Your task to perform on an android device: set default search engine in the chrome app Image 0: 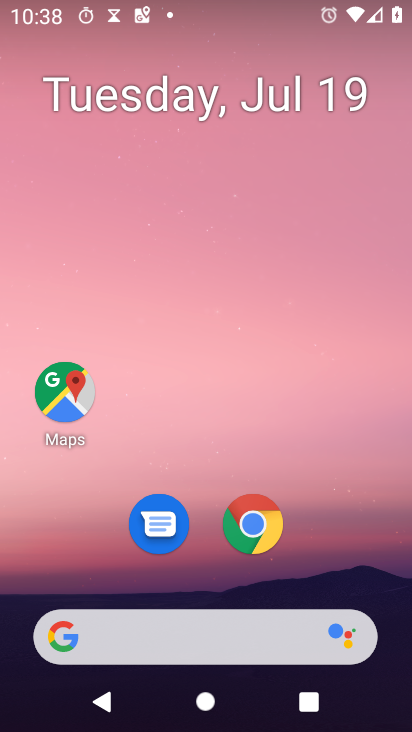
Step 0: click (256, 527)
Your task to perform on an android device: set default search engine in the chrome app Image 1: 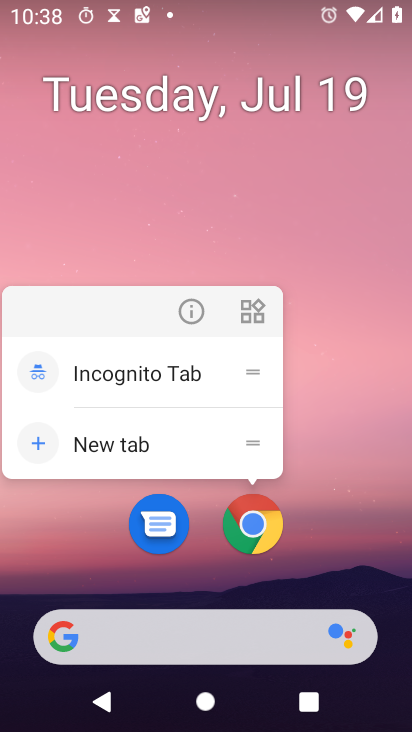
Step 1: click (258, 524)
Your task to perform on an android device: set default search engine in the chrome app Image 2: 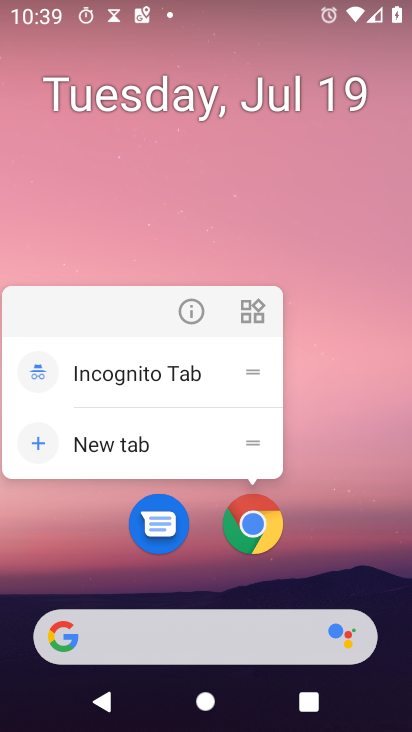
Step 2: click (252, 531)
Your task to perform on an android device: set default search engine in the chrome app Image 3: 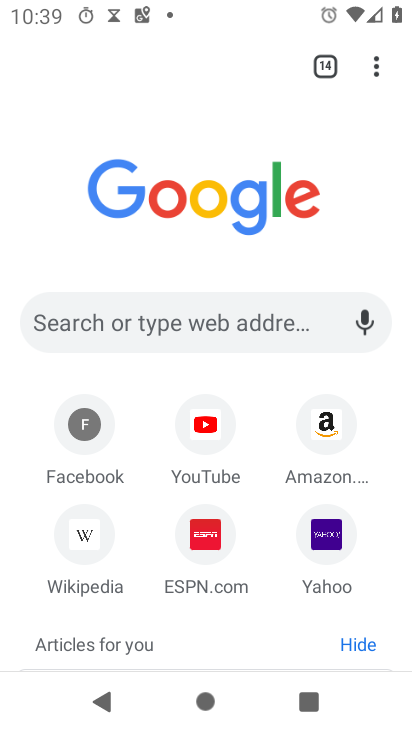
Step 3: drag from (377, 66) to (188, 562)
Your task to perform on an android device: set default search engine in the chrome app Image 4: 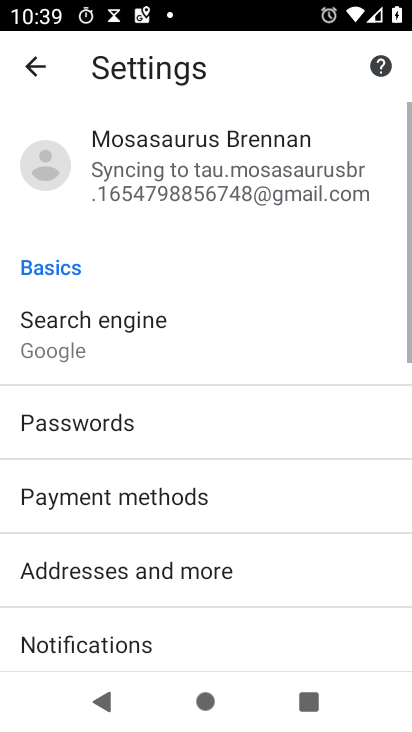
Step 4: click (107, 330)
Your task to perform on an android device: set default search engine in the chrome app Image 5: 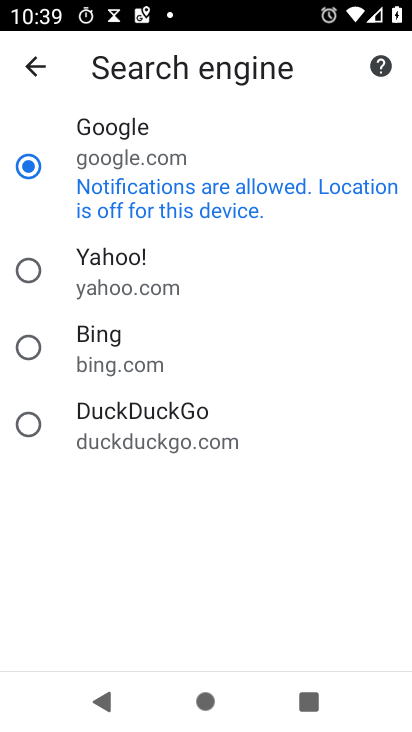
Step 5: click (29, 270)
Your task to perform on an android device: set default search engine in the chrome app Image 6: 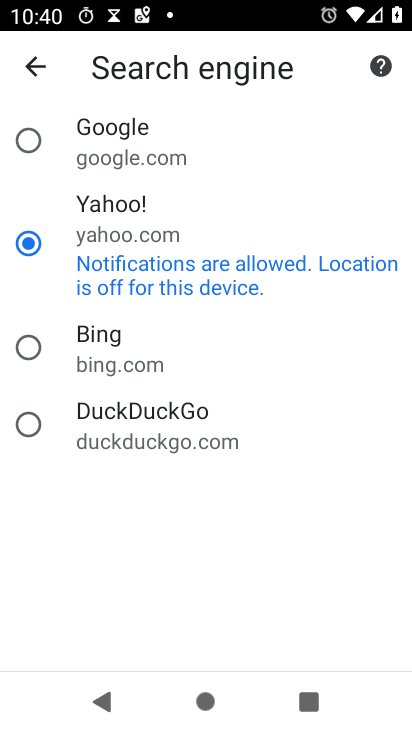
Step 6: task complete